Your task to perform on an android device: open app "Nova Launcher" (install if not already installed), go to login, and select forgot password Image 0: 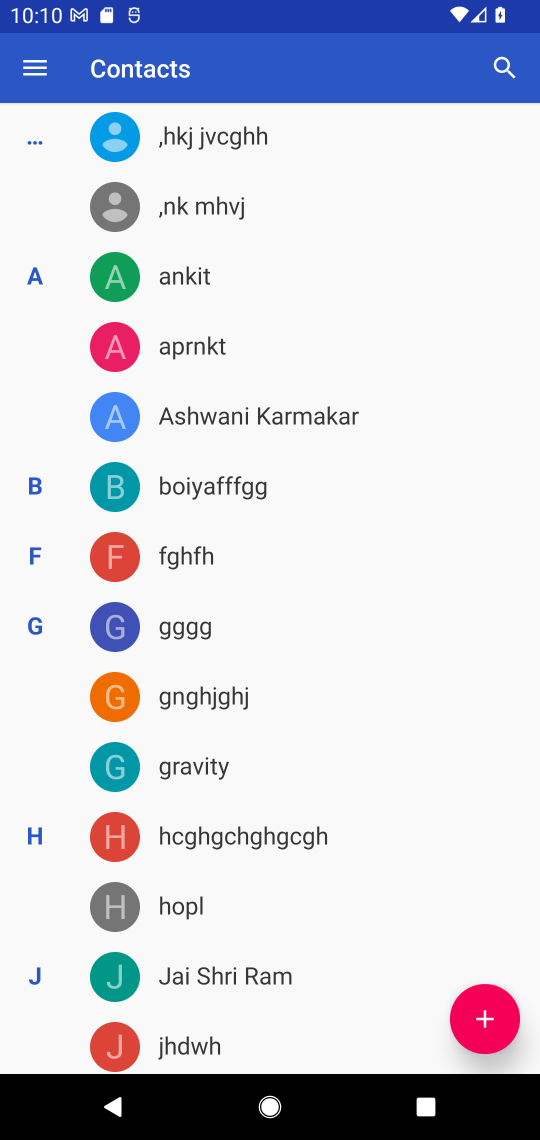
Step 0: press home button
Your task to perform on an android device: open app "Nova Launcher" (install if not already installed), go to login, and select forgot password Image 1: 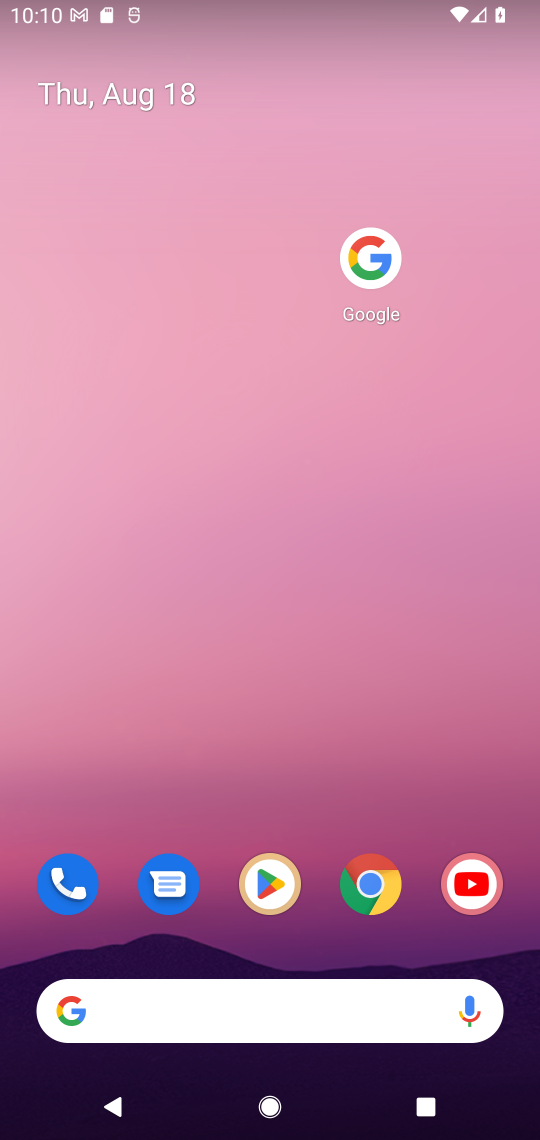
Step 1: click (280, 883)
Your task to perform on an android device: open app "Nova Launcher" (install if not already installed), go to login, and select forgot password Image 2: 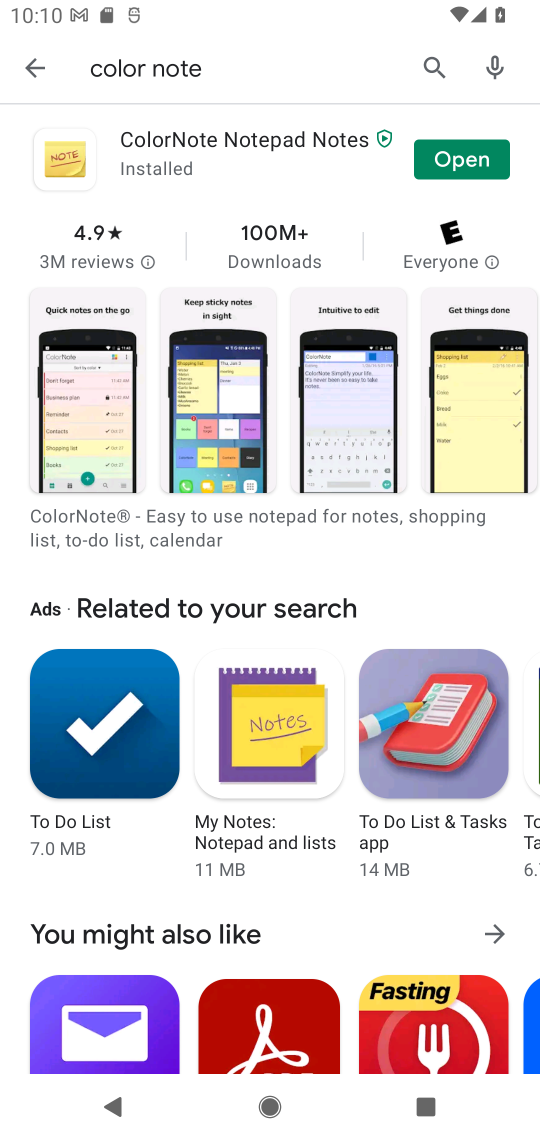
Step 2: click (429, 61)
Your task to perform on an android device: open app "Nova Launcher" (install if not already installed), go to login, and select forgot password Image 3: 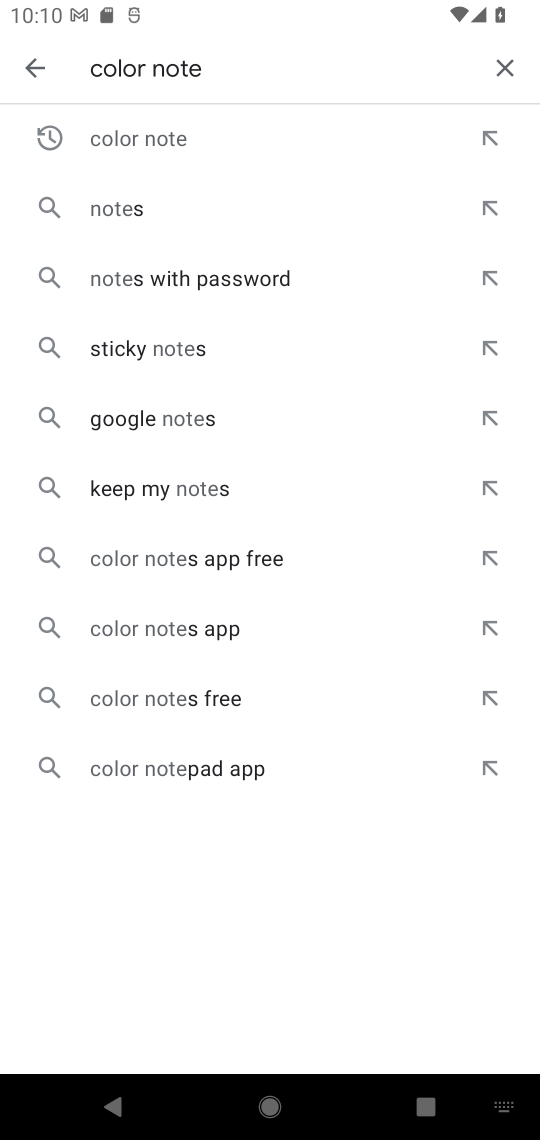
Step 3: click (487, 75)
Your task to perform on an android device: open app "Nova Launcher" (install if not already installed), go to login, and select forgot password Image 4: 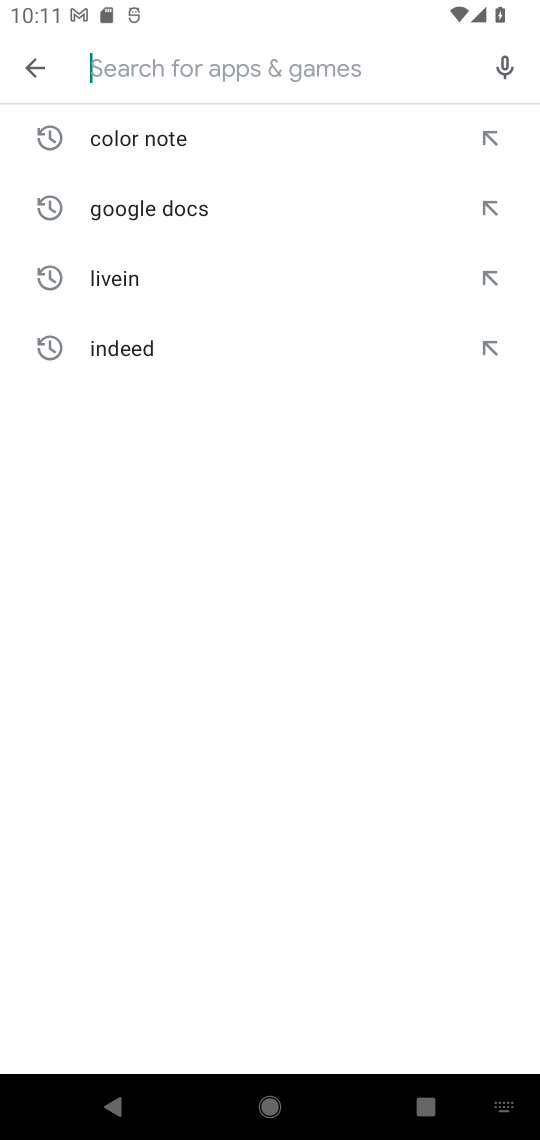
Step 4: type "nova launcher"
Your task to perform on an android device: open app "Nova Launcher" (install if not already installed), go to login, and select forgot password Image 5: 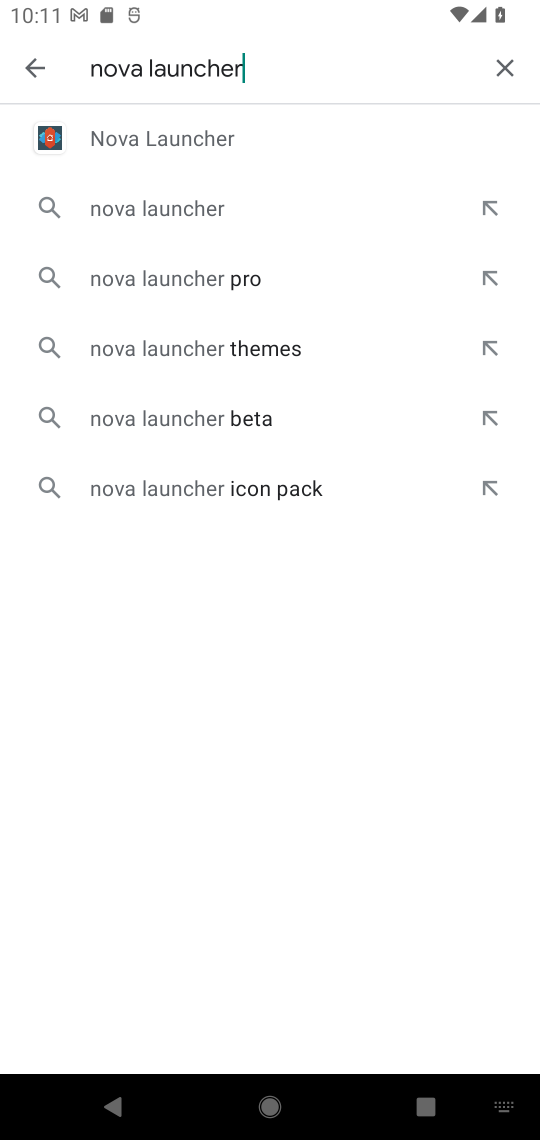
Step 5: click (193, 130)
Your task to perform on an android device: open app "Nova Launcher" (install if not already installed), go to login, and select forgot password Image 6: 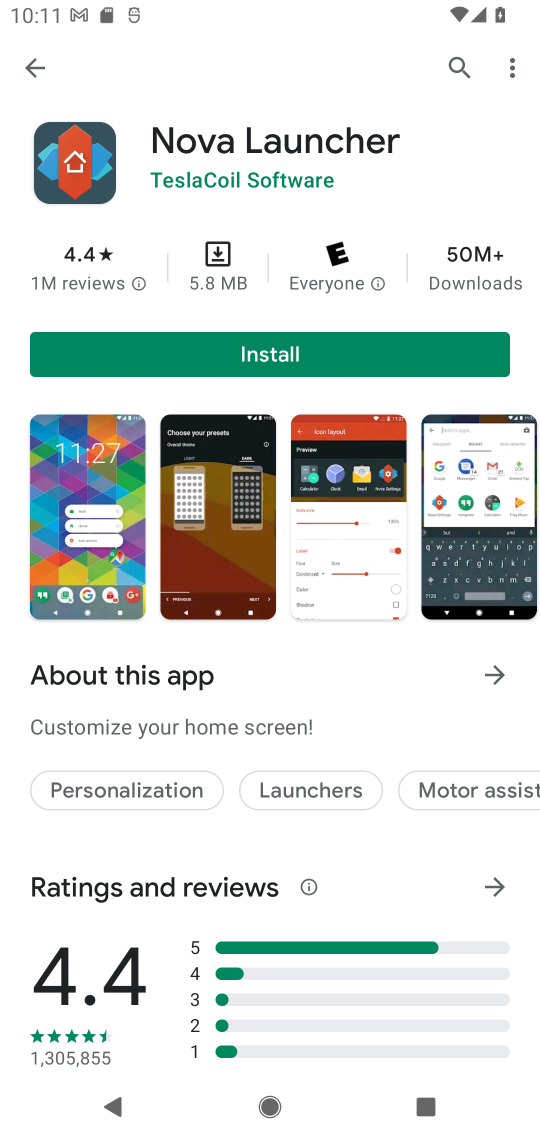
Step 6: click (327, 359)
Your task to perform on an android device: open app "Nova Launcher" (install if not already installed), go to login, and select forgot password Image 7: 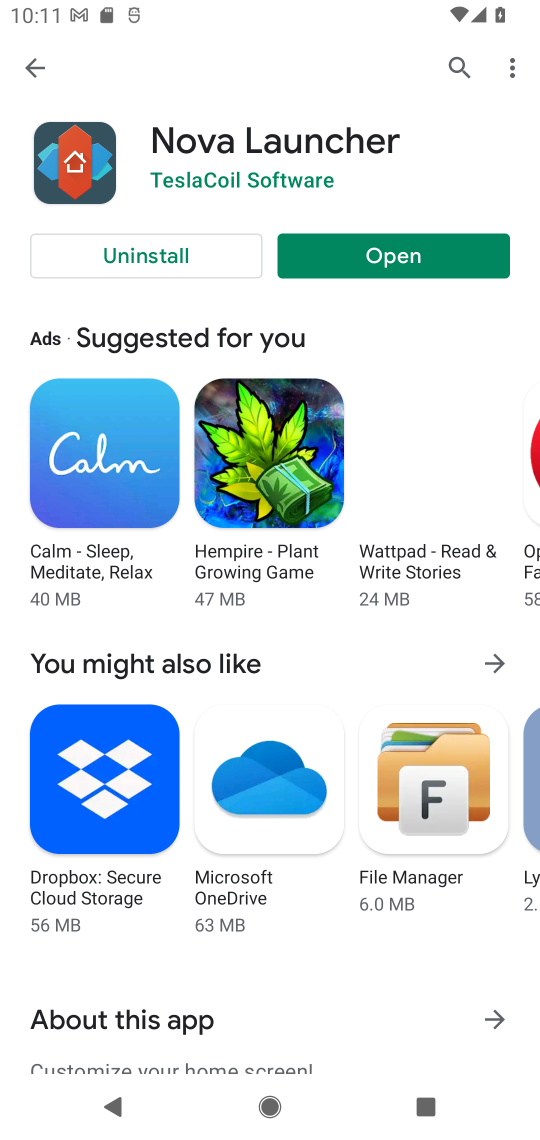
Step 7: click (474, 258)
Your task to perform on an android device: open app "Nova Launcher" (install if not already installed), go to login, and select forgot password Image 8: 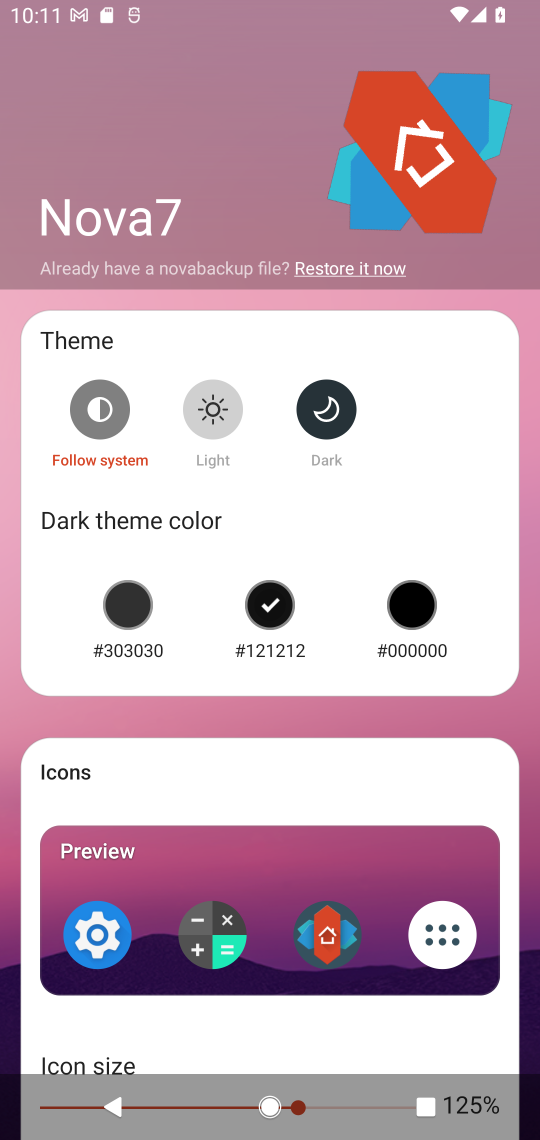
Step 8: task complete